Your task to perform on an android device: Go to notification settings Image 0: 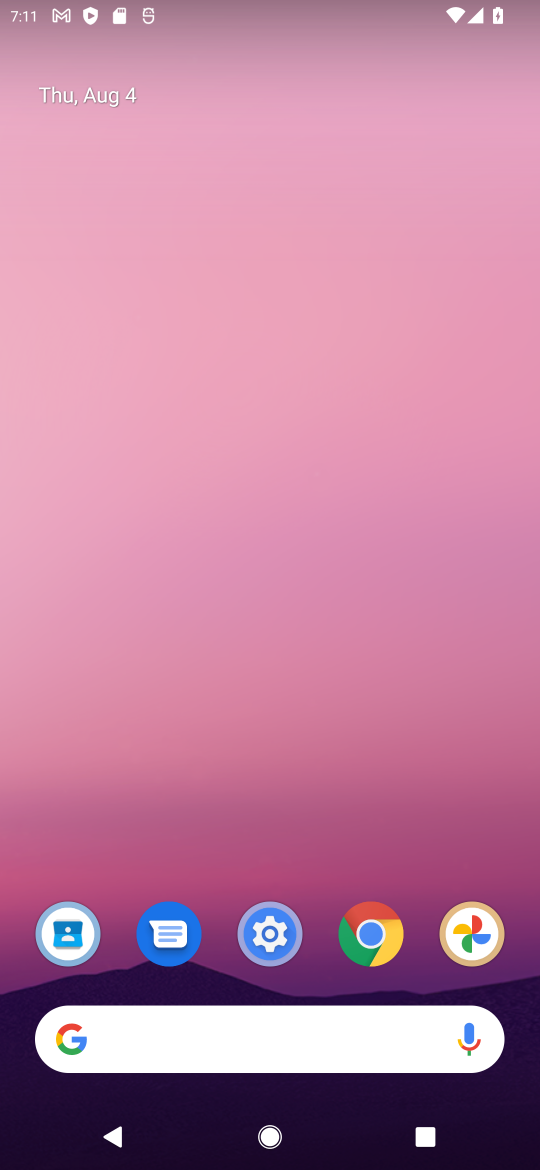
Step 0: click (266, 948)
Your task to perform on an android device: Go to notification settings Image 1: 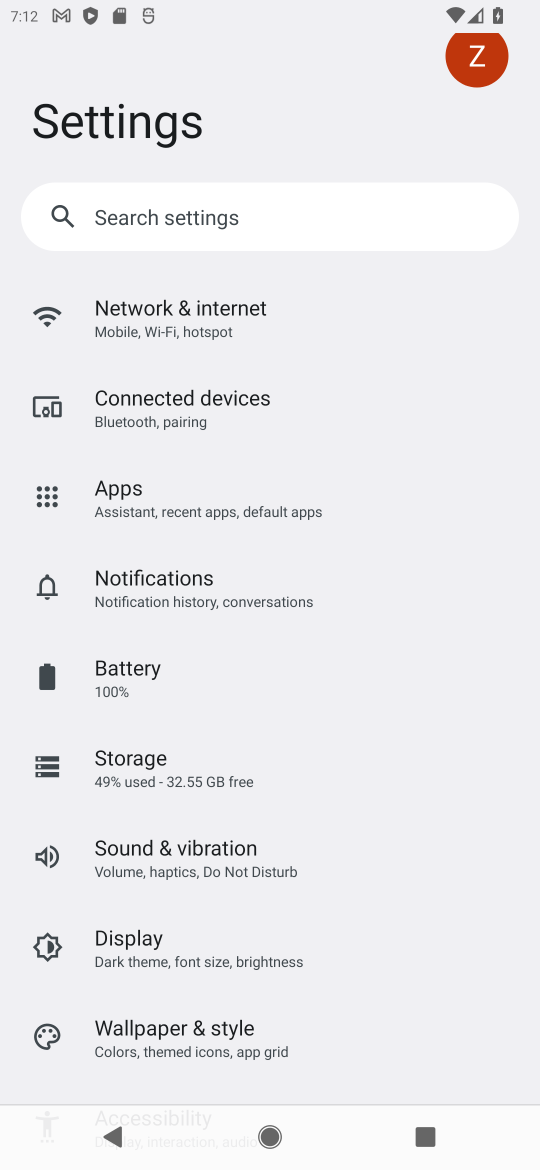
Step 1: click (277, 578)
Your task to perform on an android device: Go to notification settings Image 2: 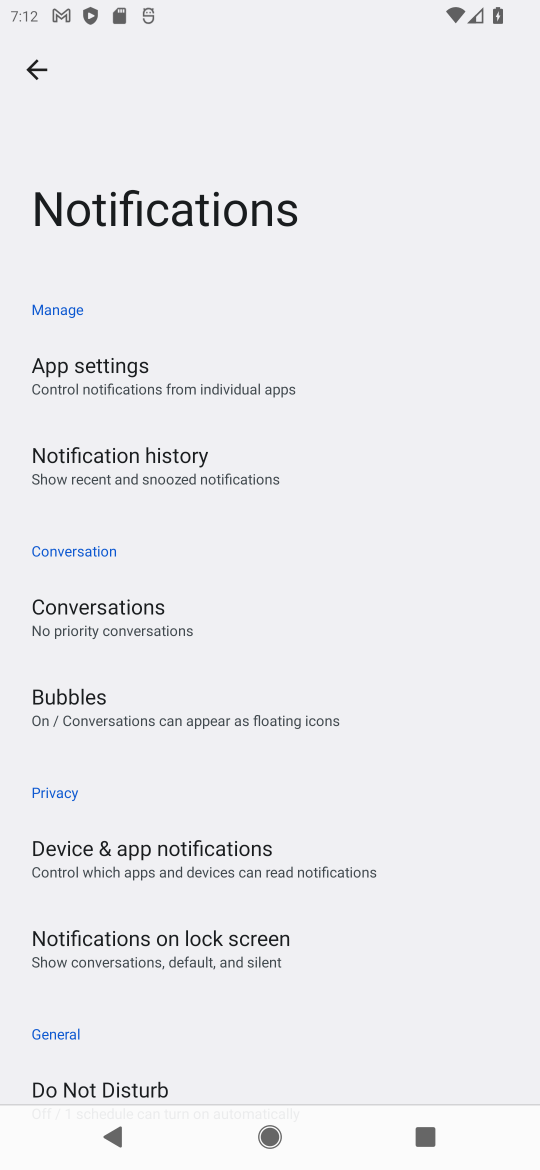
Step 2: task complete